Your task to perform on an android device: Go to settings Image 0: 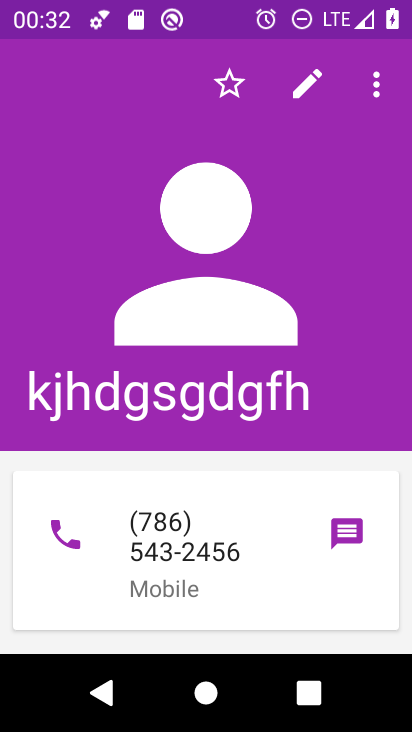
Step 0: press home button
Your task to perform on an android device: Go to settings Image 1: 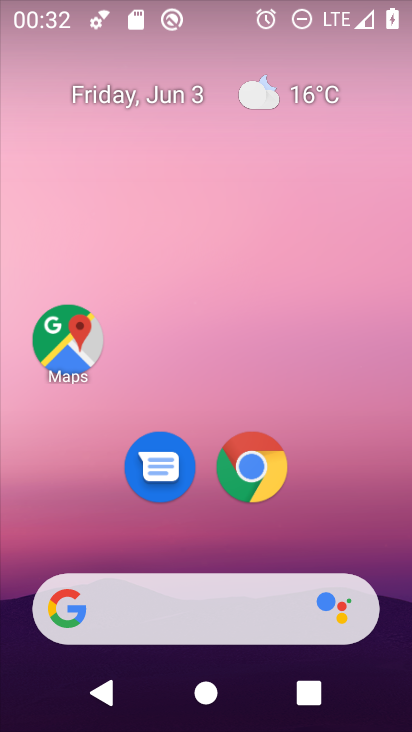
Step 1: drag from (397, 622) to (325, 126)
Your task to perform on an android device: Go to settings Image 2: 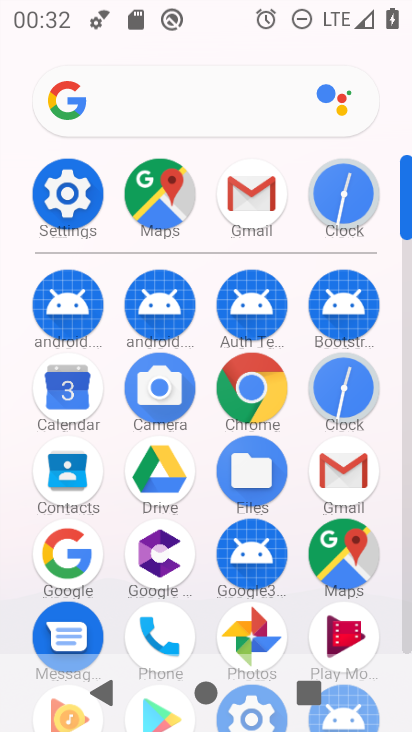
Step 2: click (404, 621)
Your task to perform on an android device: Go to settings Image 3: 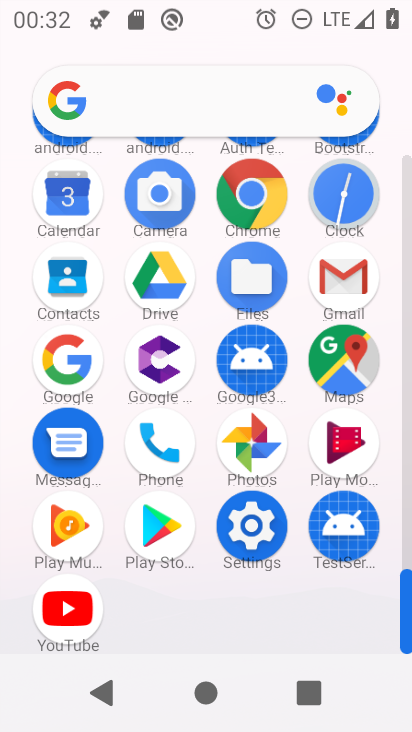
Step 3: click (249, 523)
Your task to perform on an android device: Go to settings Image 4: 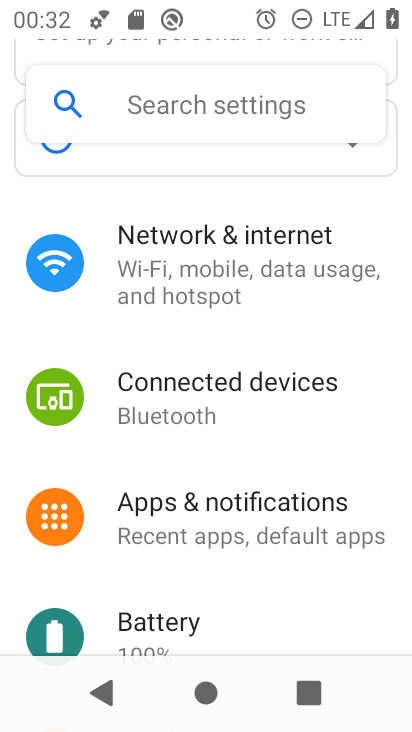
Step 4: task complete